Your task to perform on an android device: Search for pizza restaurants on Maps Image 0: 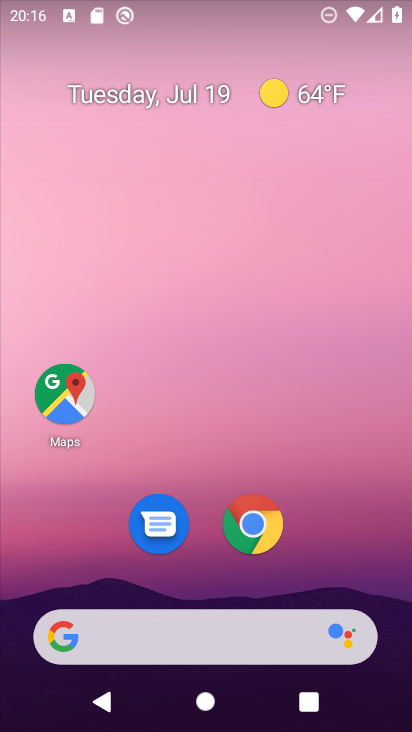
Step 0: click (61, 404)
Your task to perform on an android device: Search for pizza restaurants on Maps Image 1: 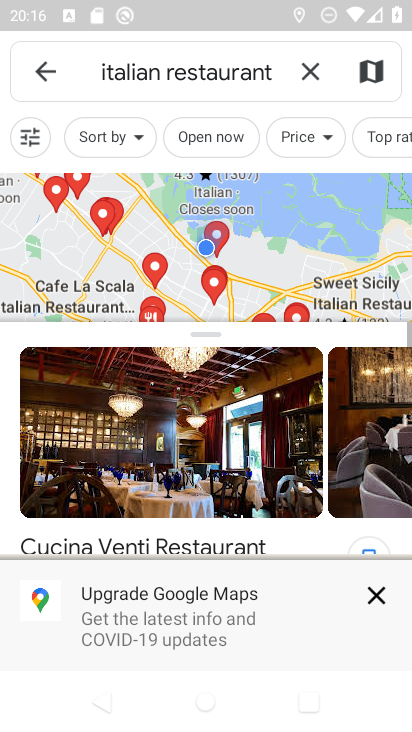
Step 1: click (315, 64)
Your task to perform on an android device: Search for pizza restaurants on Maps Image 2: 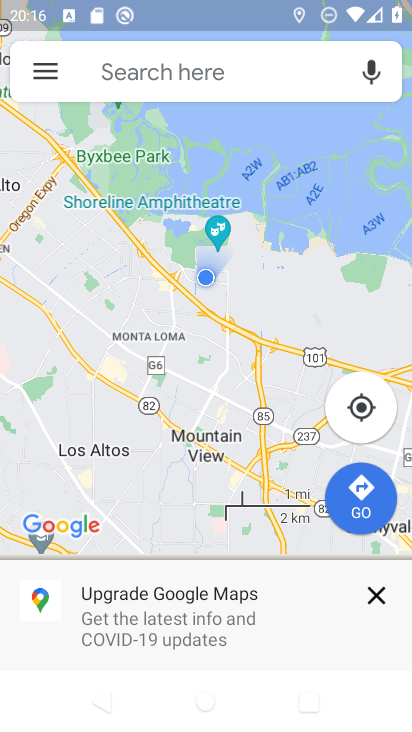
Step 2: click (197, 70)
Your task to perform on an android device: Search for pizza restaurants on Maps Image 3: 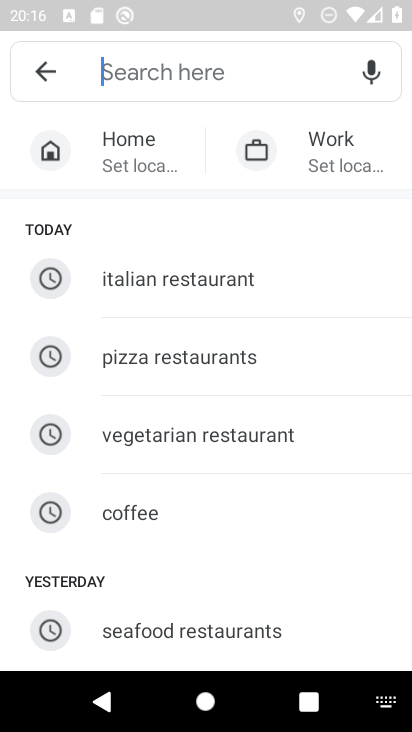
Step 3: click (174, 351)
Your task to perform on an android device: Search for pizza restaurants on Maps Image 4: 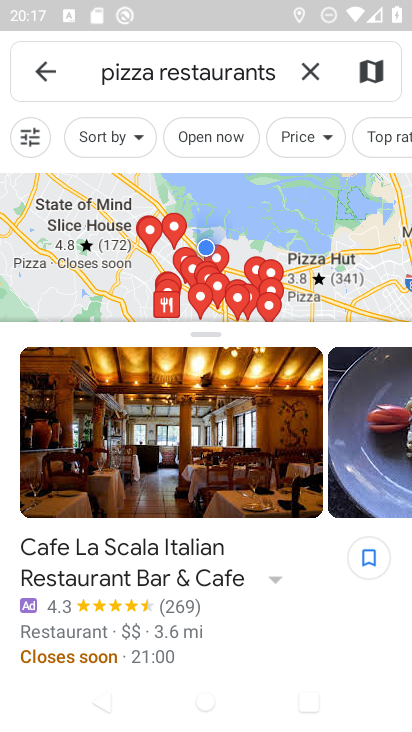
Step 4: task complete